Your task to perform on an android device: Open the Play Movies app and select the watchlist tab. Image 0: 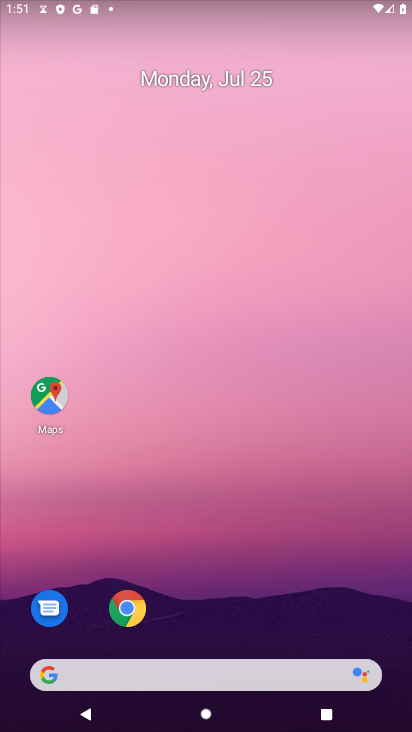
Step 0: drag from (238, 681) to (293, 30)
Your task to perform on an android device: Open the Play Movies app and select the watchlist tab. Image 1: 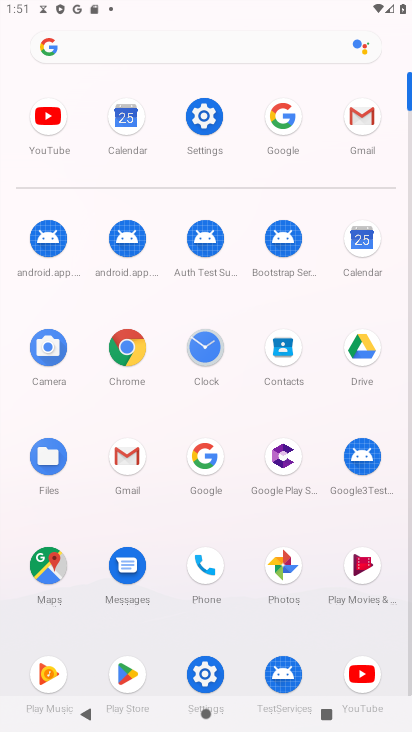
Step 1: click (362, 566)
Your task to perform on an android device: Open the Play Movies app and select the watchlist tab. Image 2: 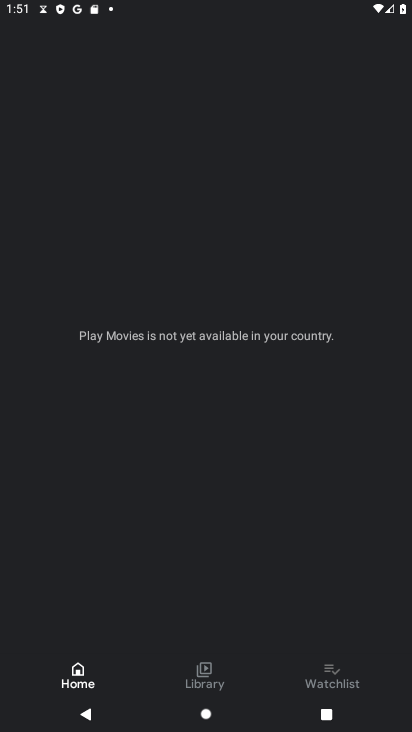
Step 2: click (332, 673)
Your task to perform on an android device: Open the Play Movies app and select the watchlist tab. Image 3: 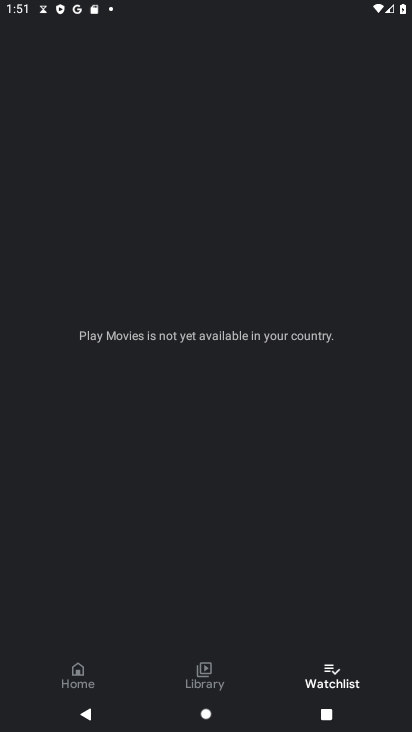
Step 3: task complete